Your task to perform on an android device: turn notification dots off Image 0: 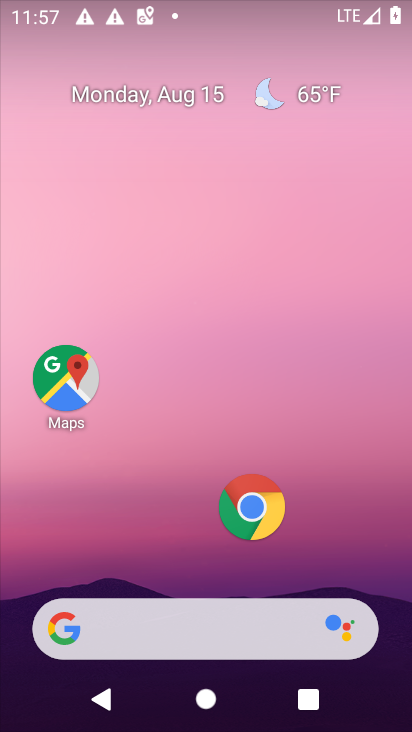
Step 0: drag from (184, 540) to (184, 83)
Your task to perform on an android device: turn notification dots off Image 1: 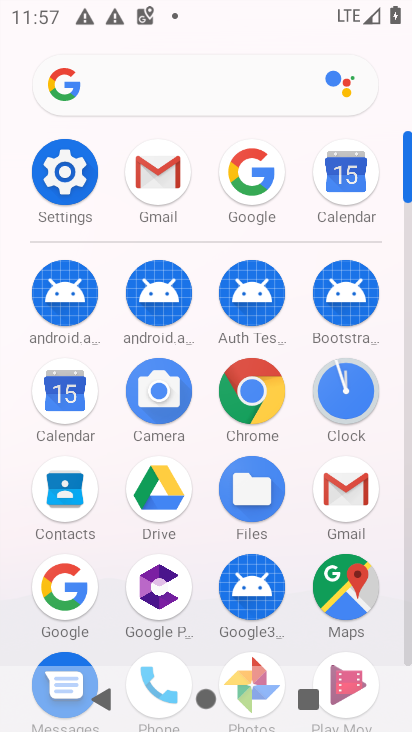
Step 1: click (65, 170)
Your task to perform on an android device: turn notification dots off Image 2: 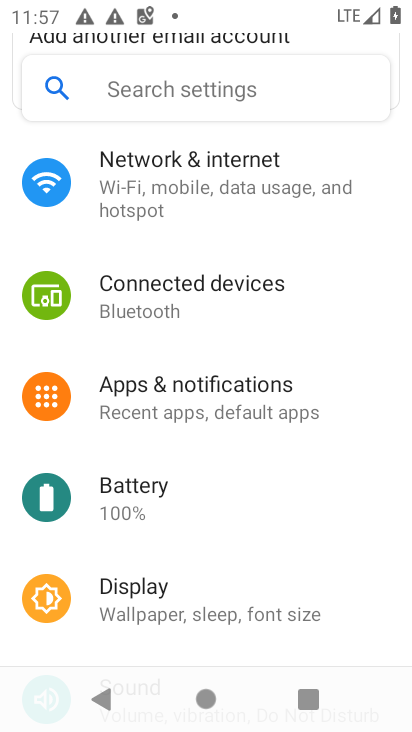
Step 2: click (194, 386)
Your task to perform on an android device: turn notification dots off Image 3: 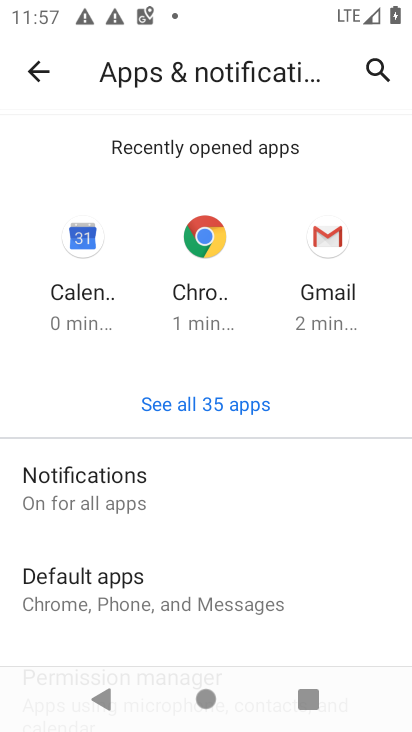
Step 3: drag from (203, 546) to (229, 424)
Your task to perform on an android device: turn notification dots off Image 4: 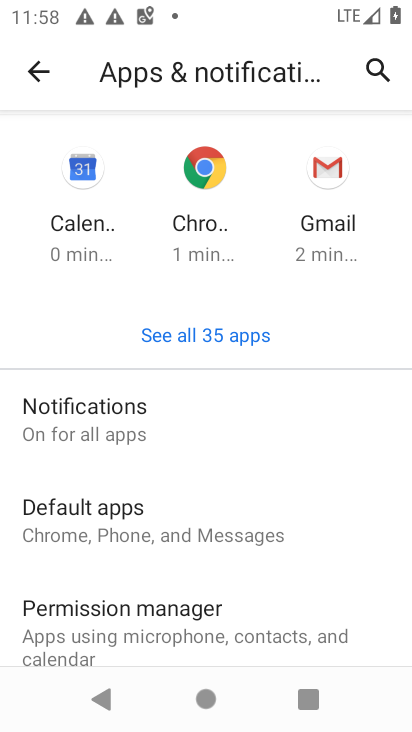
Step 4: click (100, 404)
Your task to perform on an android device: turn notification dots off Image 5: 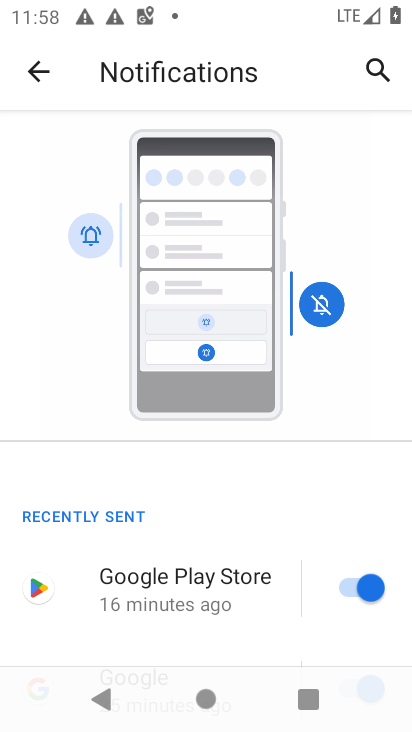
Step 5: drag from (223, 525) to (183, 224)
Your task to perform on an android device: turn notification dots off Image 6: 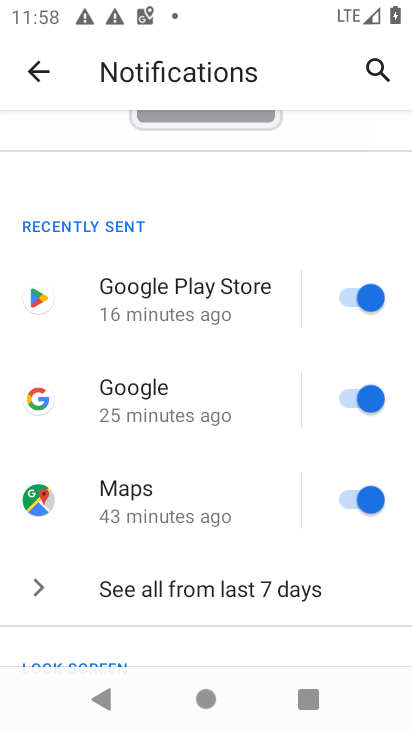
Step 6: drag from (217, 619) to (217, 299)
Your task to perform on an android device: turn notification dots off Image 7: 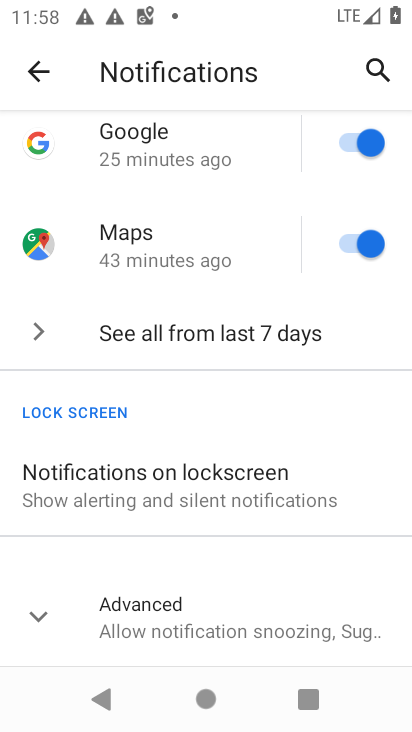
Step 7: click (38, 605)
Your task to perform on an android device: turn notification dots off Image 8: 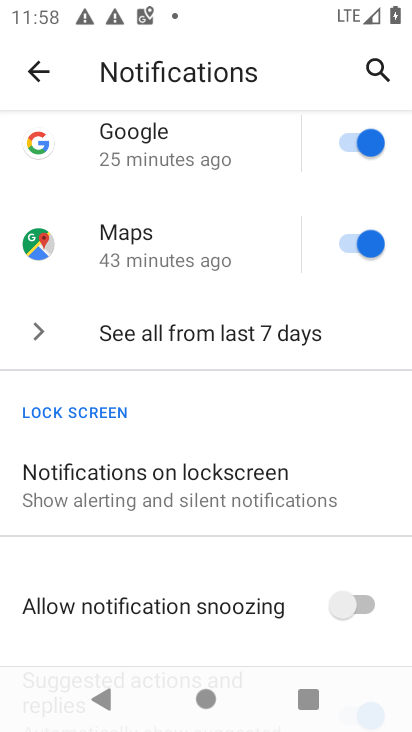
Step 8: task complete